Your task to perform on an android device: stop showing notifications on the lock screen Image 0: 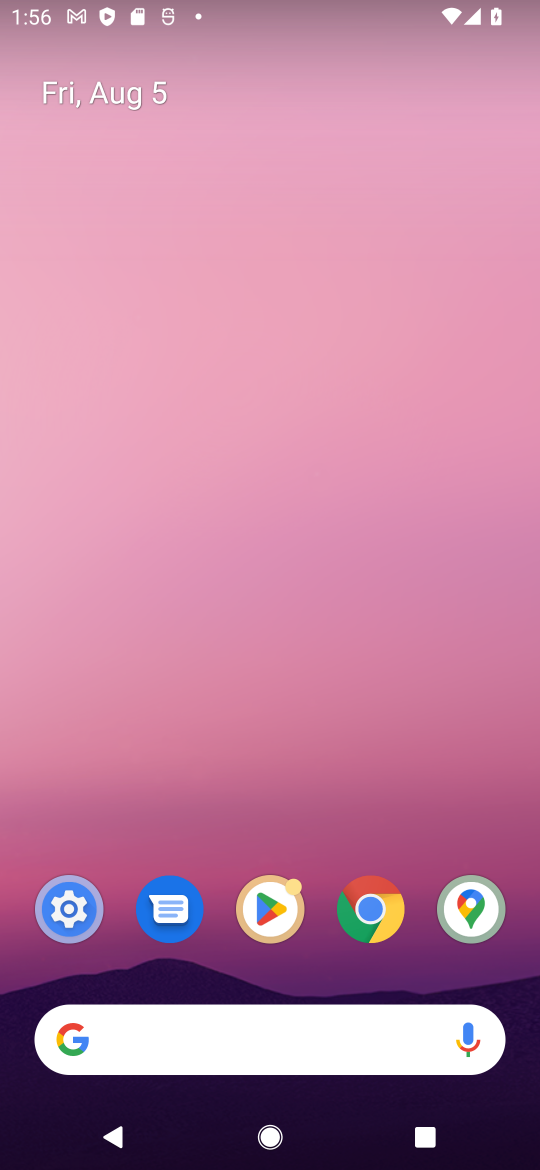
Step 0: drag from (87, 944) to (89, 270)
Your task to perform on an android device: stop showing notifications on the lock screen Image 1: 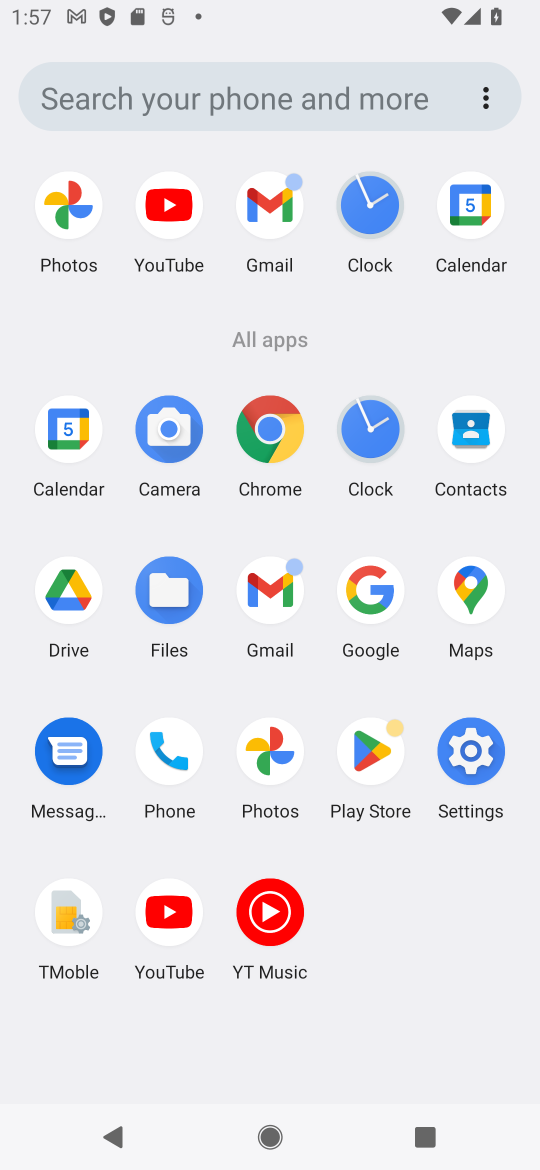
Step 1: click (443, 780)
Your task to perform on an android device: stop showing notifications on the lock screen Image 2: 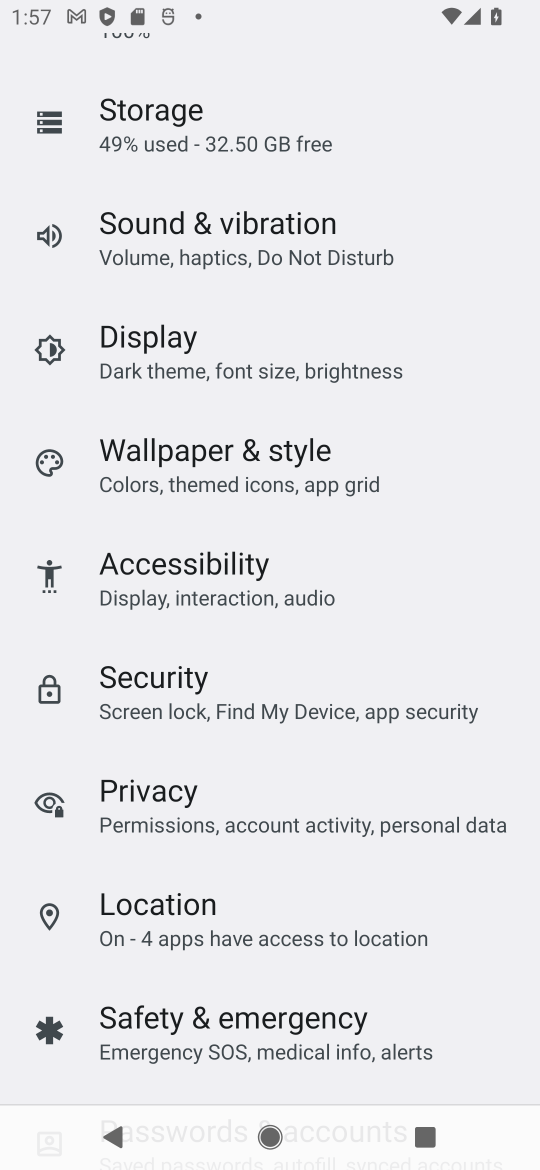
Step 2: task complete